Your task to perform on an android device: open app "LiveIn - Share Your Moment" (install if not already installed) Image 0: 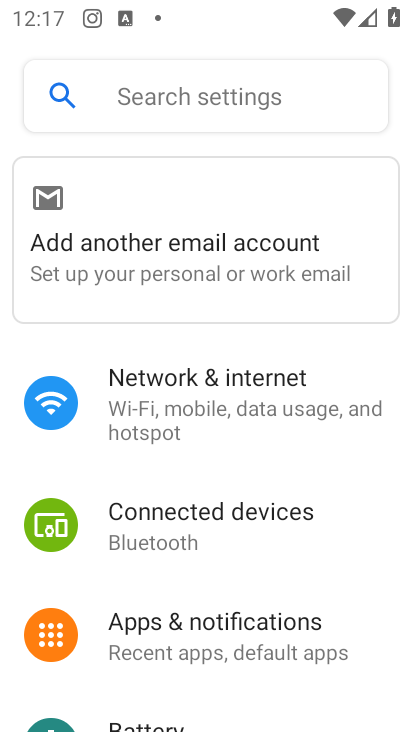
Step 0: press back button
Your task to perform on an android device: open app "LiveIn - Share Your Moment" (install if not already installed) Image 1: 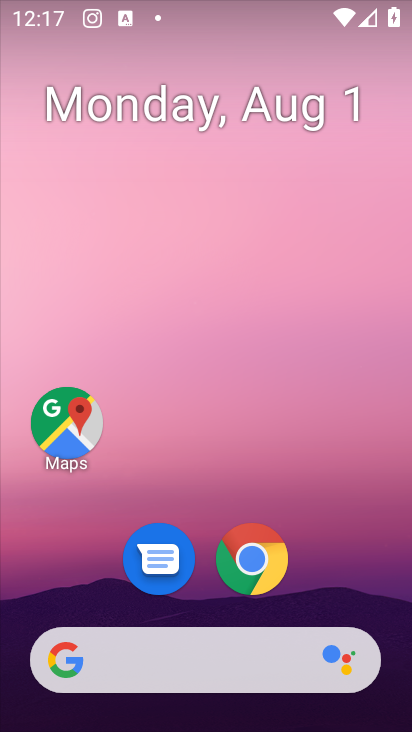
Step 1: drag from (85, 575) to (187, 110)
Your task to perform on an android device: open app "LiveIn - Share Your Moment" (install if not already installed) Image 2: 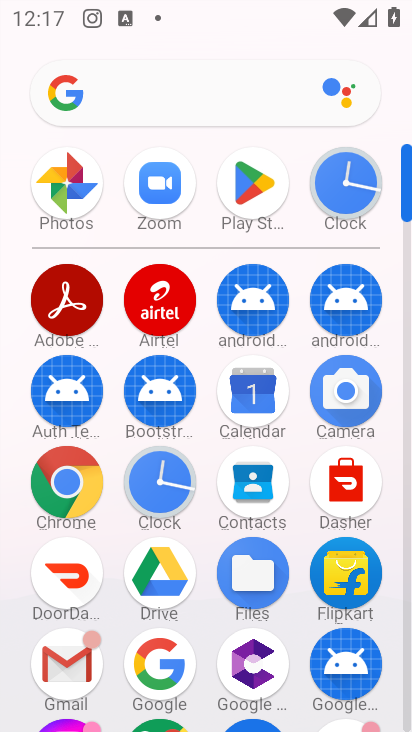
Step 2: click (245, 182)
Your task to perform on an android device: open app "LiveIn - Share Your Moment" (install if not already installed) Image 3: 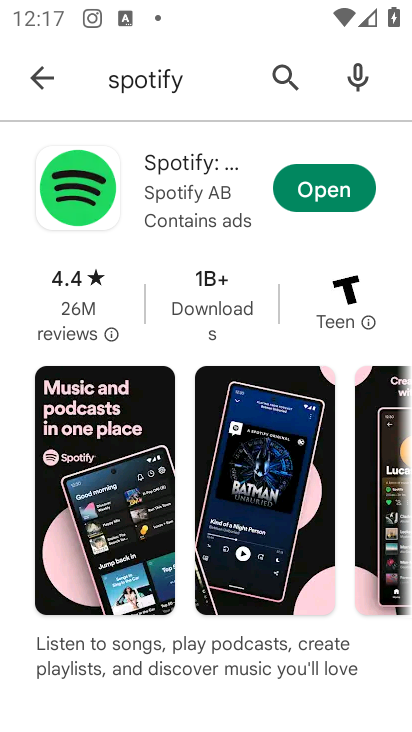
Step 3: click (275, 66)
Your task to perform on an android device: open app "LiveIn - Share Your Moment" (install if not already installed) Image 4: 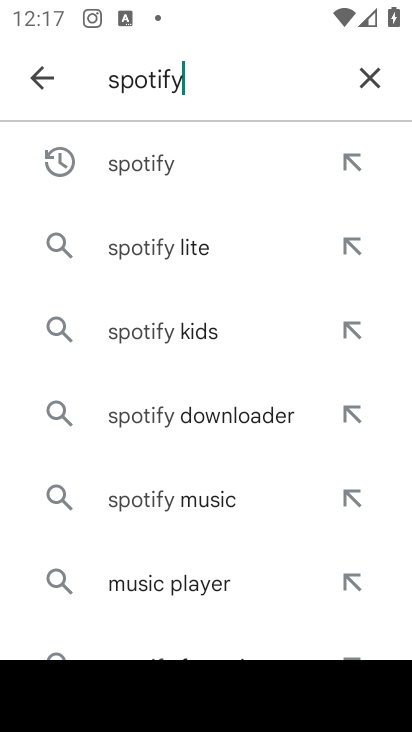
Step 4: click (372, 76)
Your task to perform on an android device: open app "LiveIn - Share Your Moment" (install if not already installed) Image 5: 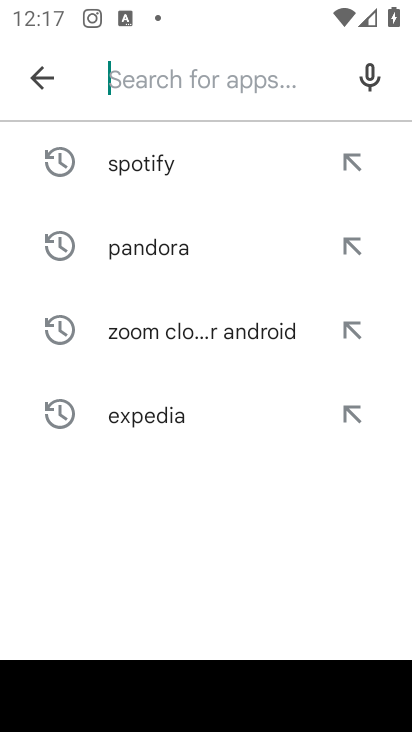
Step 5: click (193, 74)
Your task to perform on an android device: open app "LiveIn - Share Your Moment" (install if not already installed) Image 6: 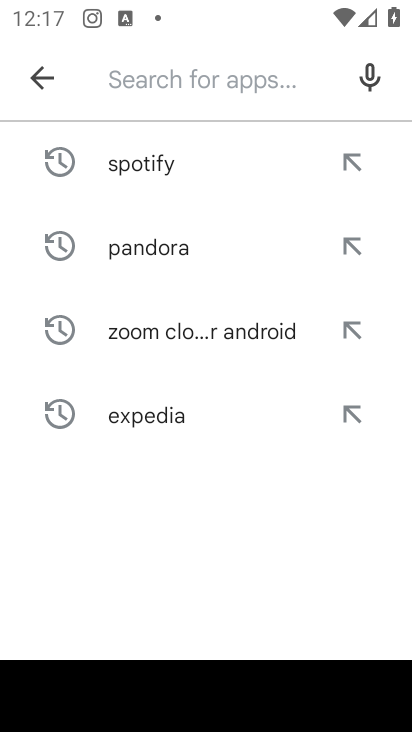
Step 6: type "liveln"
Your task to perform on an android device: open app "LiveIn - Share Your Moment" (install if not already installed) Image 7: 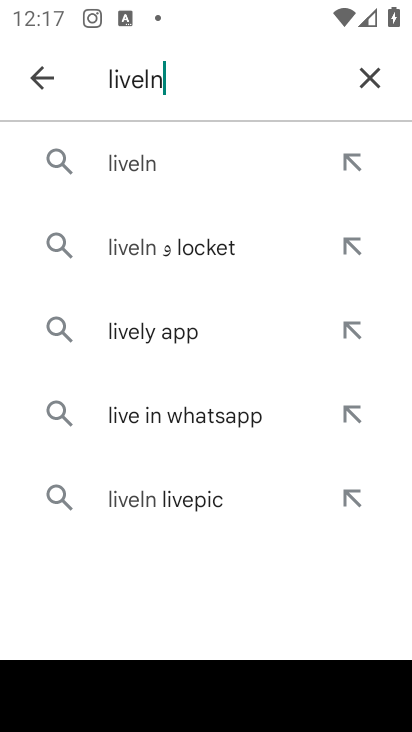
Step 7: click (143, 145)
Your task to perform on an android device: open app "LiveIn - Share Your Moment" (install if not already installed) Image 8: 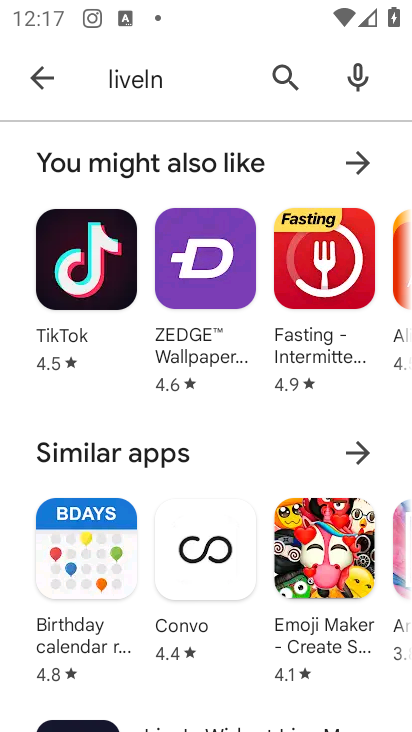
Step 8: task complete